Your task to perform on an android device: Search for vegetarian restaurants on Maps Image 0: 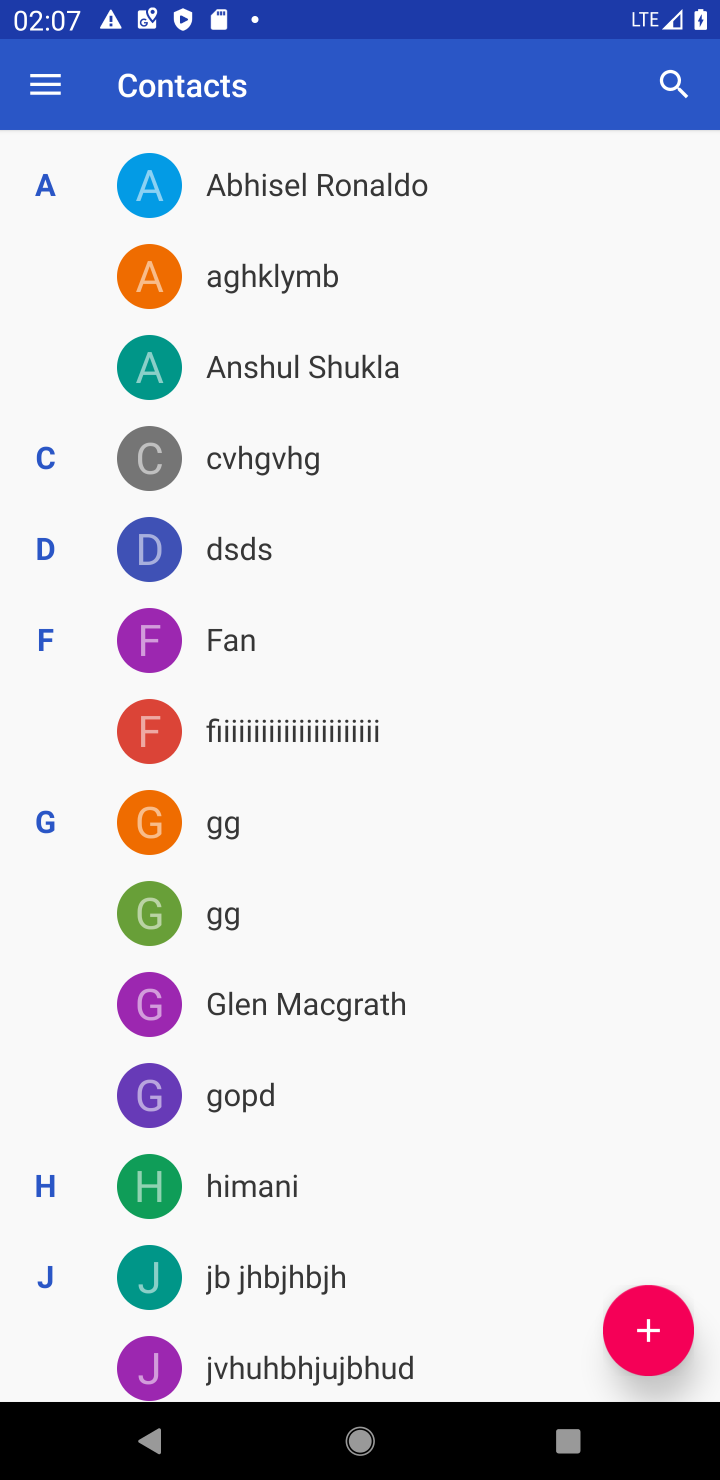
Step 0: click (380, 1453)
Your task to perform on an android device: Search for vegetarian restaurants on Maps Image 1: 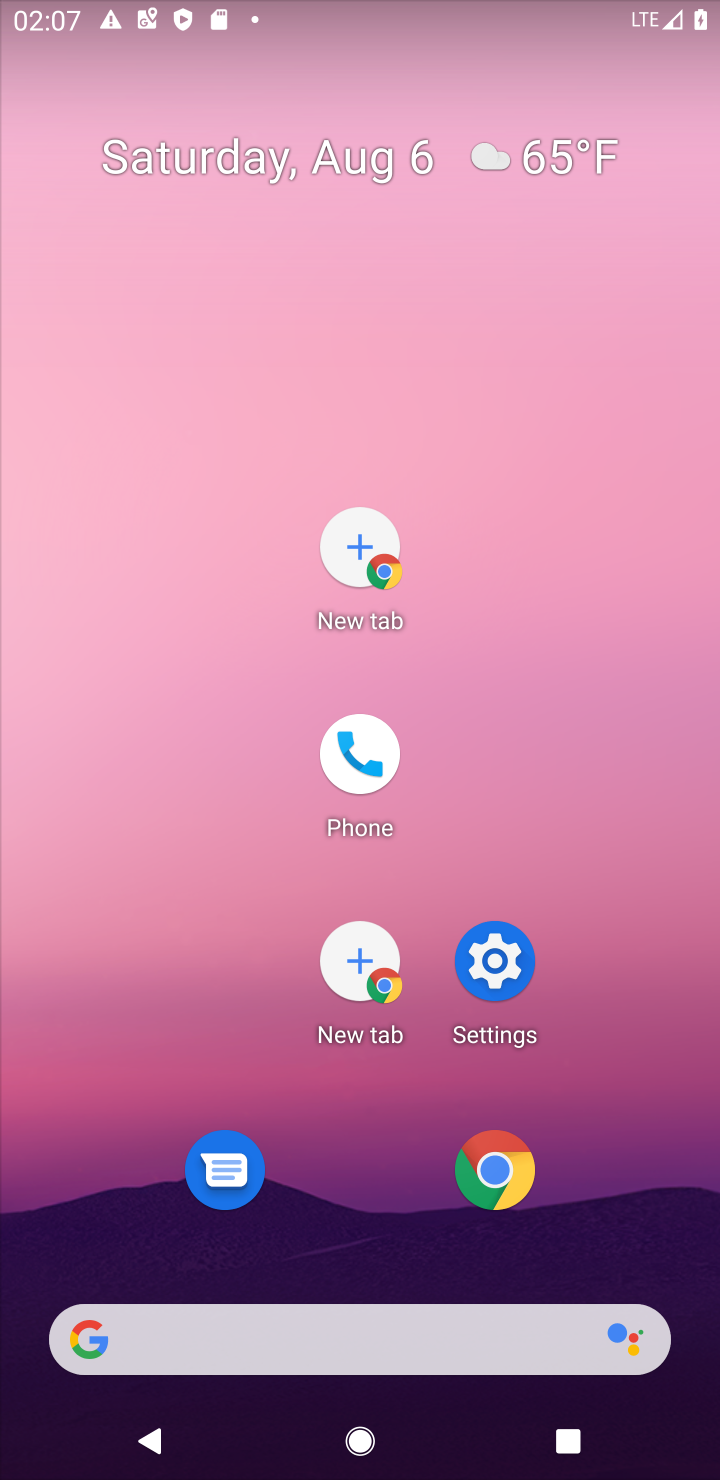
Step 1: drag from (394, 1253) to (447, 430)
Your task to perform on an android device: Search for vegetarian restaurants on Maps Image 2: 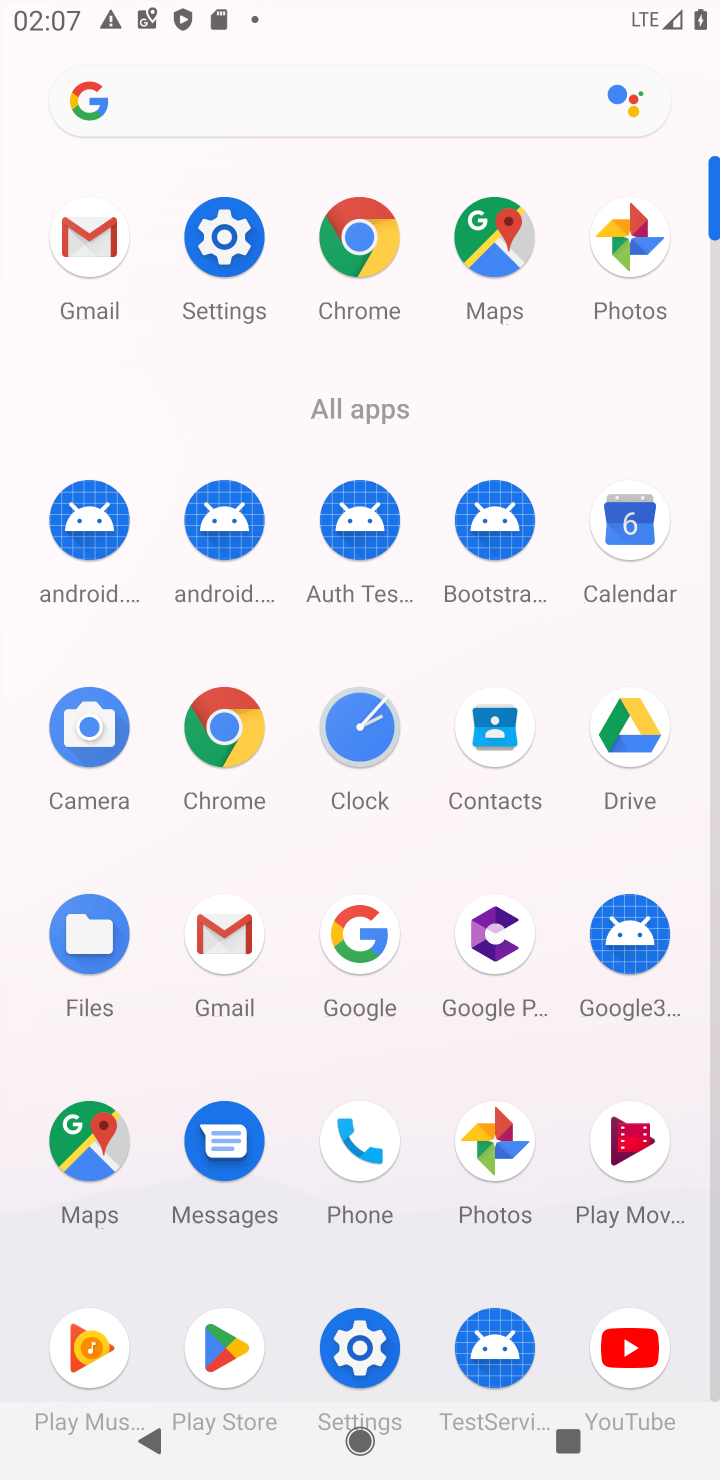
Step 2: click (110, 1144)
Your task to perform on an android device: Search for vegetarian restaurants on Maps Image 3: 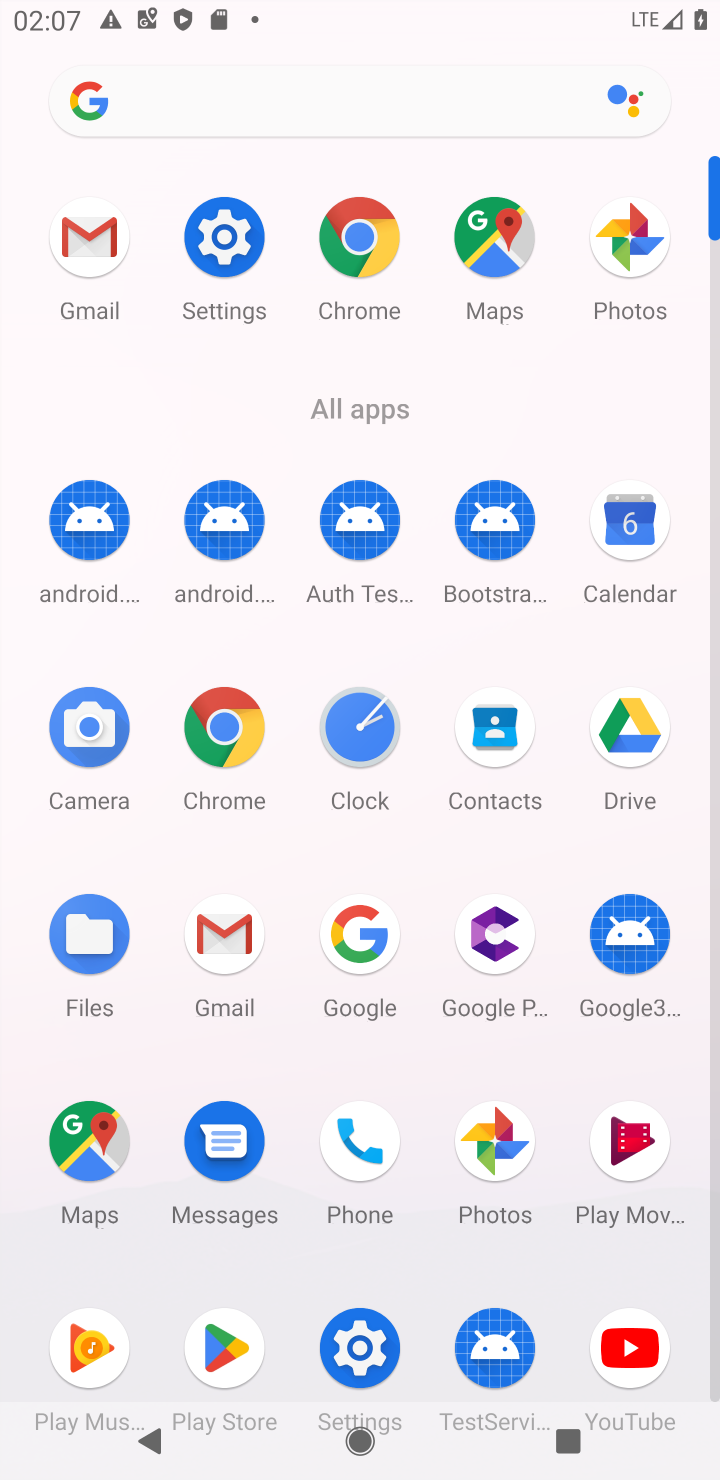
Step 3: click (110, 1144)
Your task to perform on an android device: Search for vegetarian restaurants on Maps Image 4: 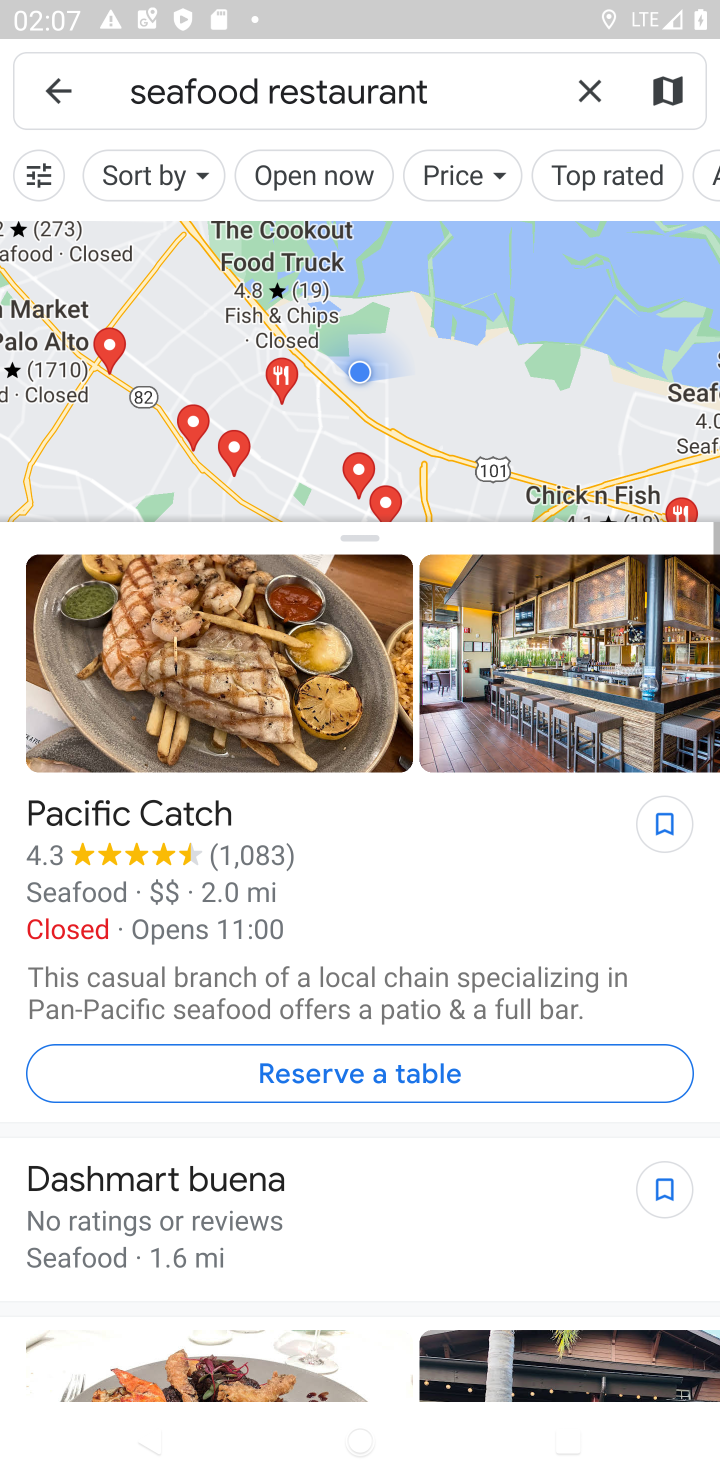
Step 4: click (688, 91)
Your task to perform on an android device: Search for vegetarian restaurants on Maps Image 5: 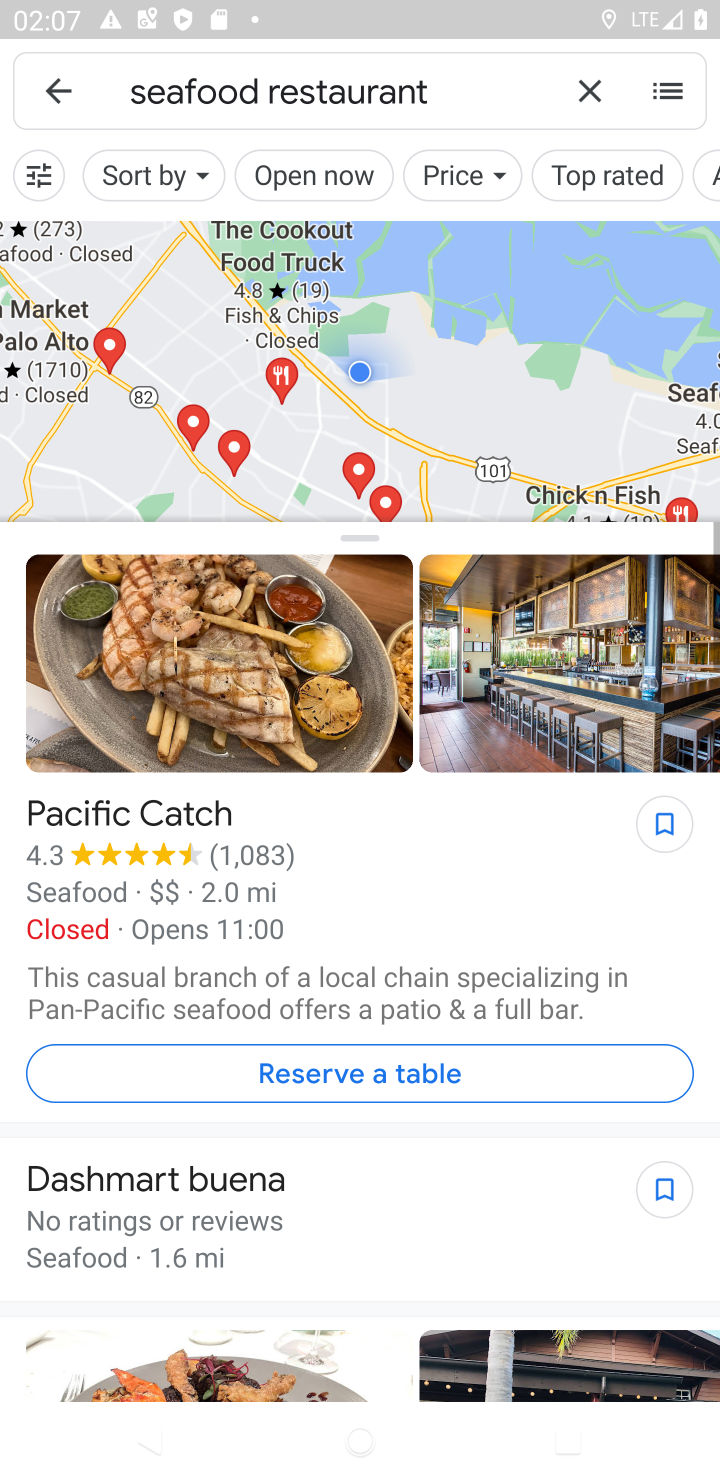
Step 5: click (597, 85)
Your task to perform on an android device: Search for vegetarian restaurants on Maps Image 6: 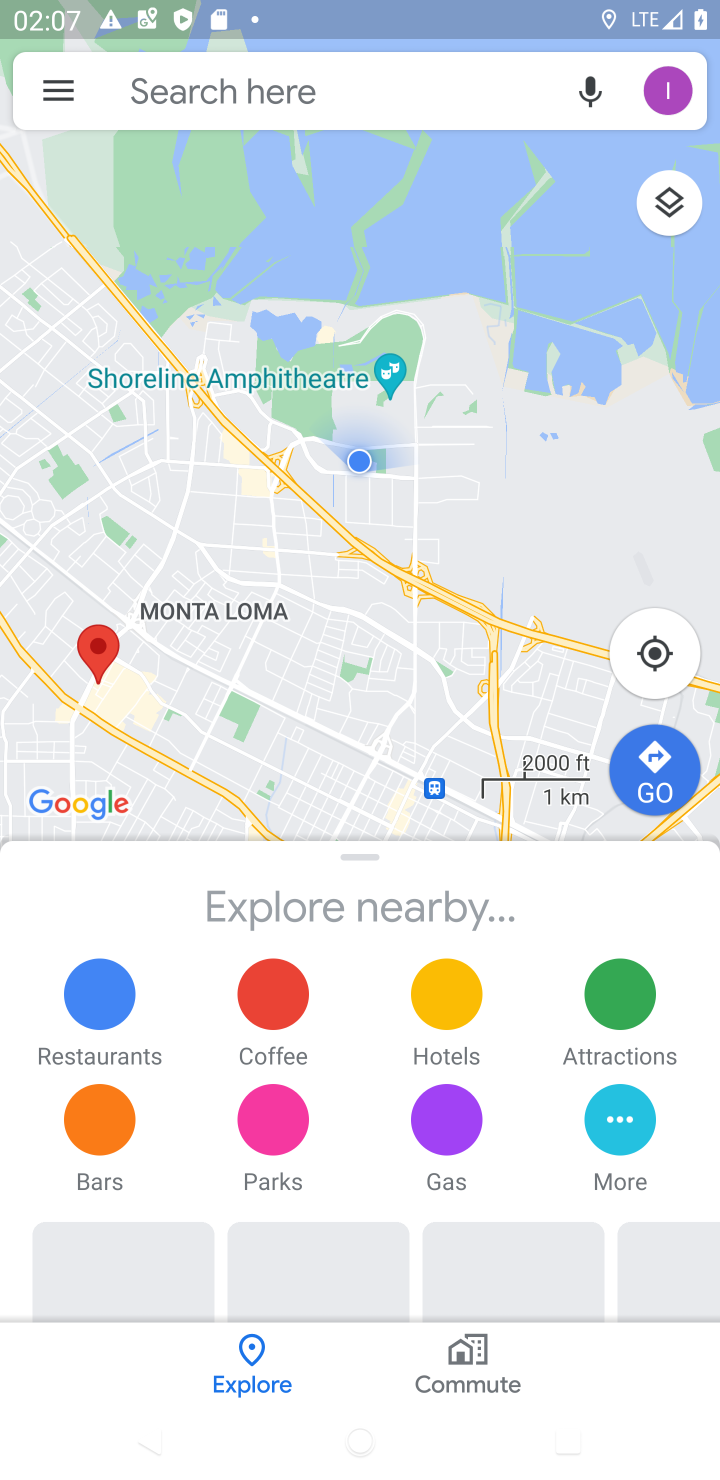
Step 6: click (496, 95)
Your task to perform on an android device: Search for vegetarian restaurants on Maps Image 7: 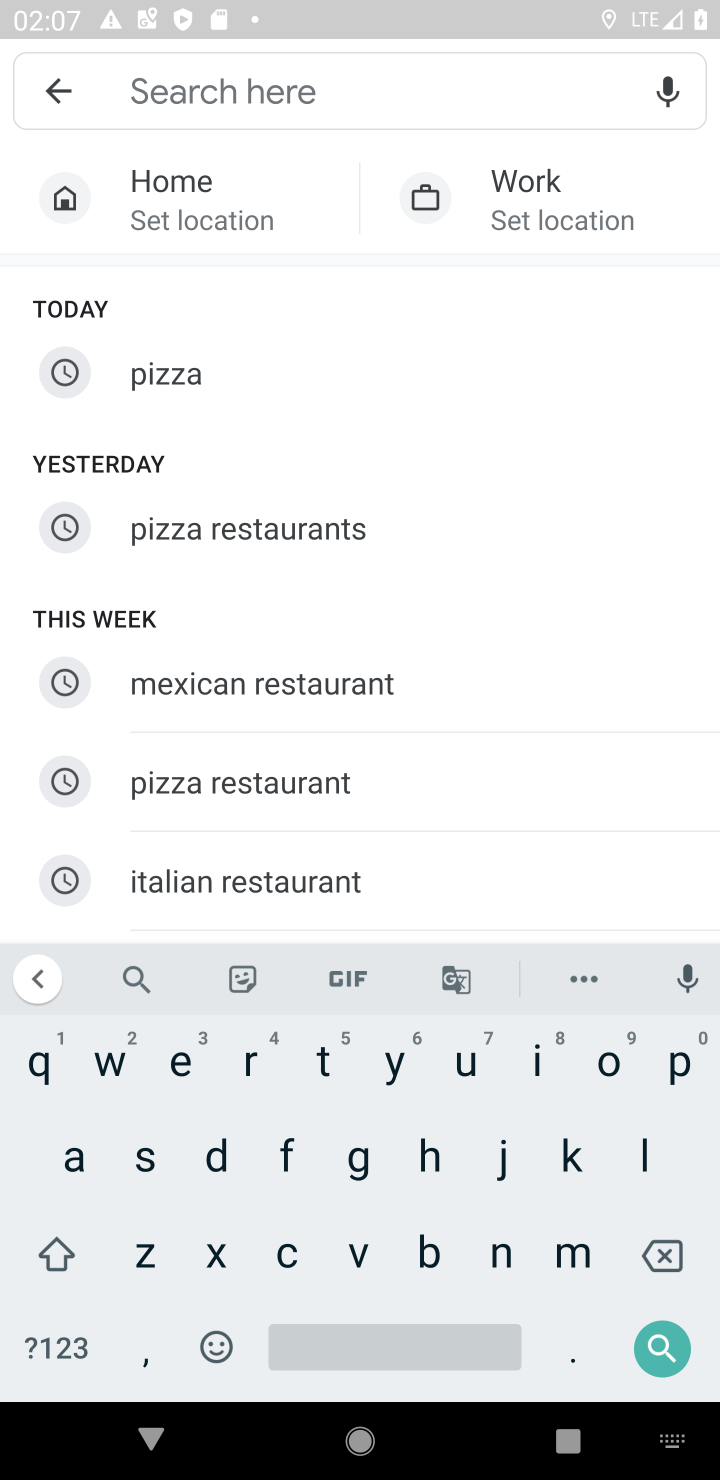
Step 7: click (360, 1266)
Your task to perform on an android device: Search for vegetarian restaurants on Maps Image 8: 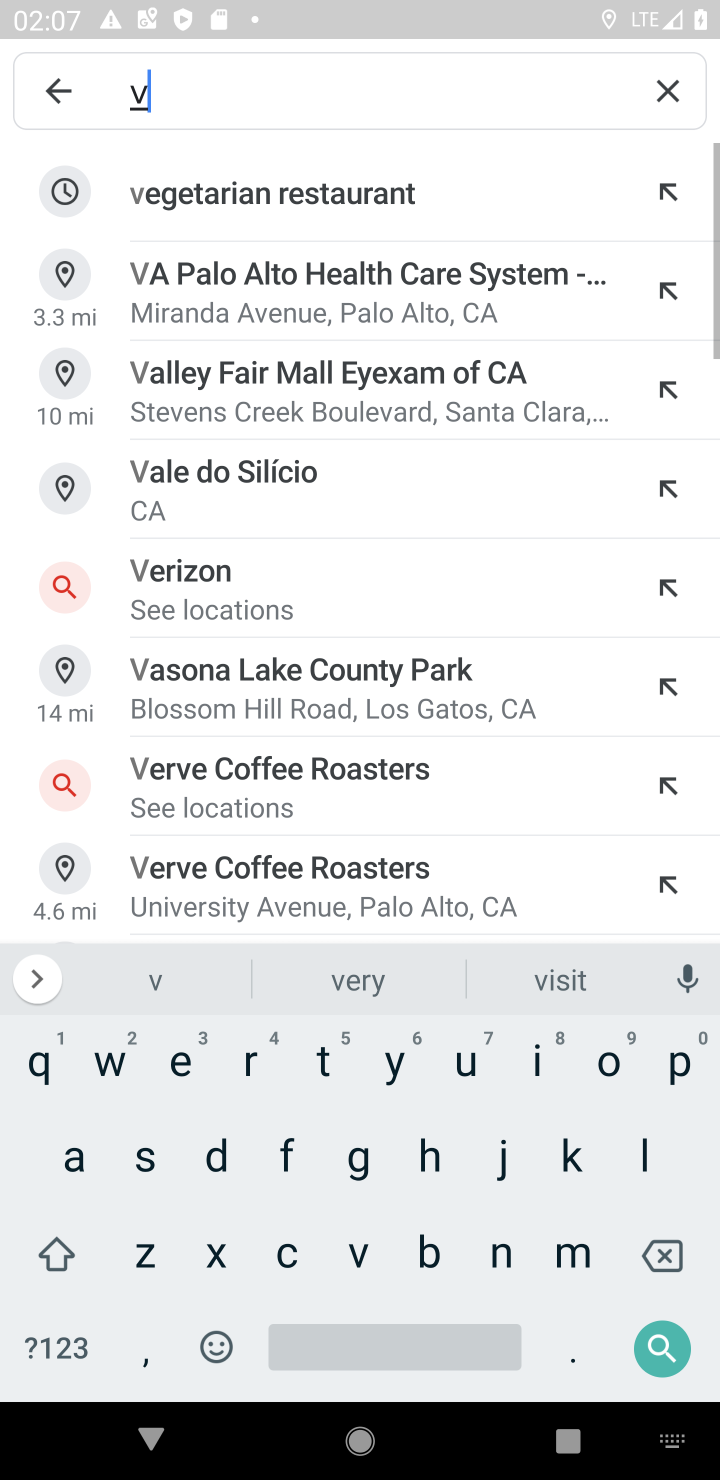
Step 8: click (185, 1063)
Your task to perform on an android device: Search for vegetarian restaurants on Maps Image 9: 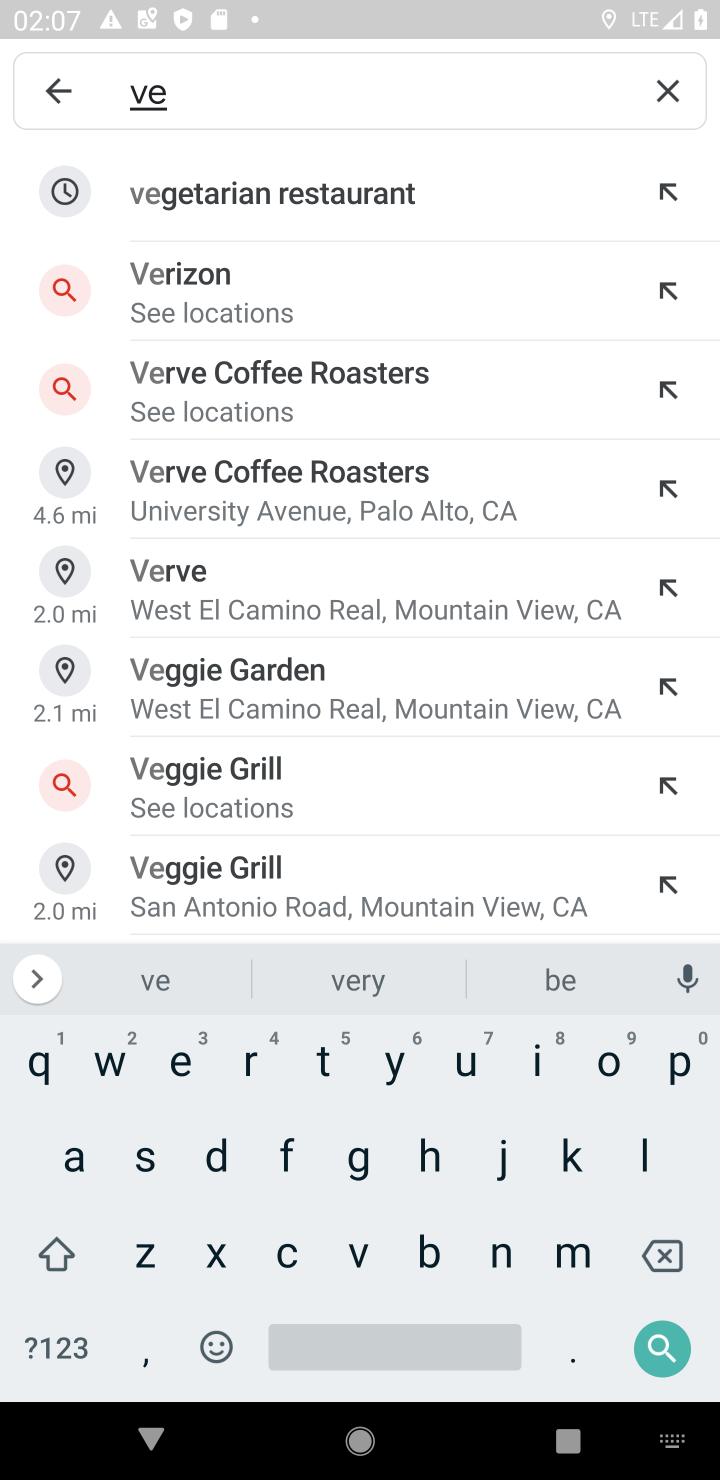
Step 9: click (384, 194)
Your task to perform on an android device: Search for vegetarian restaurants on Maps Image 10: 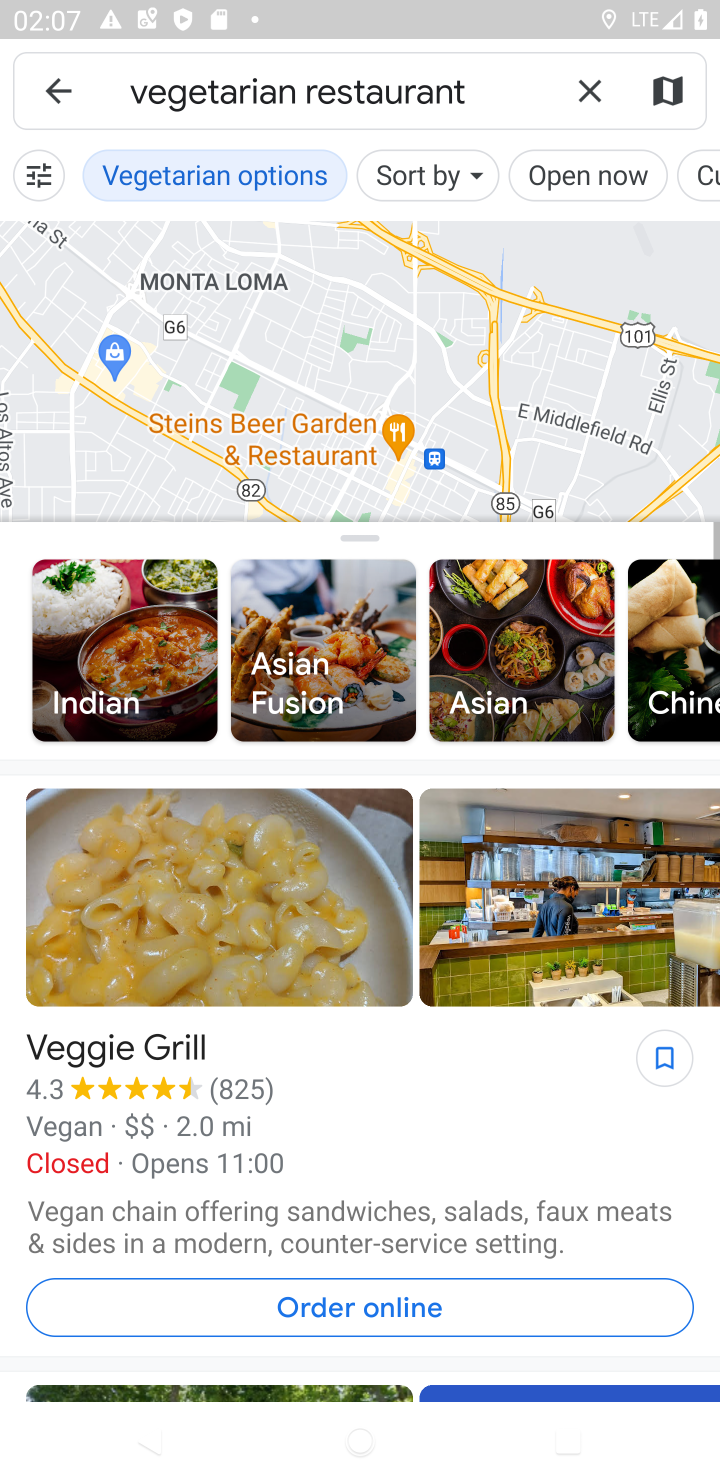
Step 10: task complete